Your task to perform on an android device: Open accessibility settings Image 0: 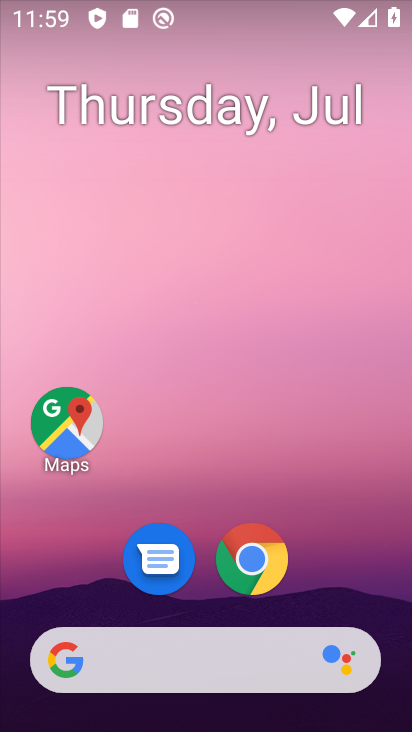
Step 0: drag from (341, 587) to (338, 76)
Your task to perform on an android device: Open accessibility settings Image 1: 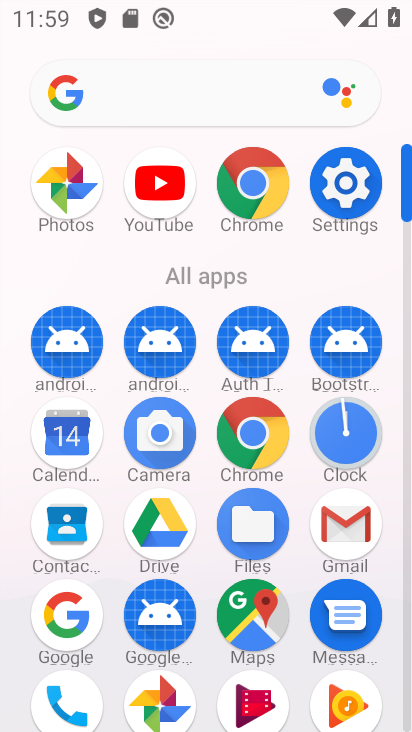
Step 1: click (355, 203)
Your task to perform on an android device: Open accessibility settings Image 2: 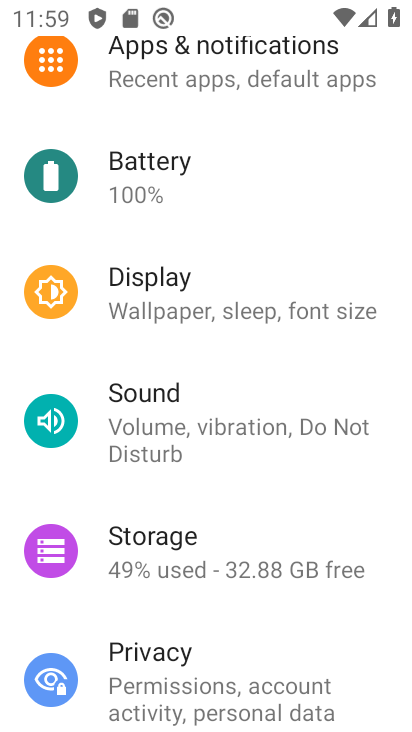
Step 2: drag from (352, 183) to (356, 311)
Your task to perform on an android device: Open accessibility settings Image 3: 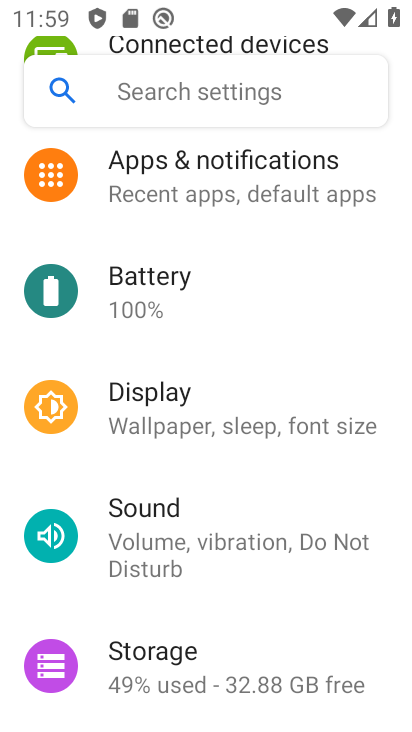
Step 3: drag from (377, 174) to (352, 372)
Your task to perform on an android device: Open accessibility settings Image 4: 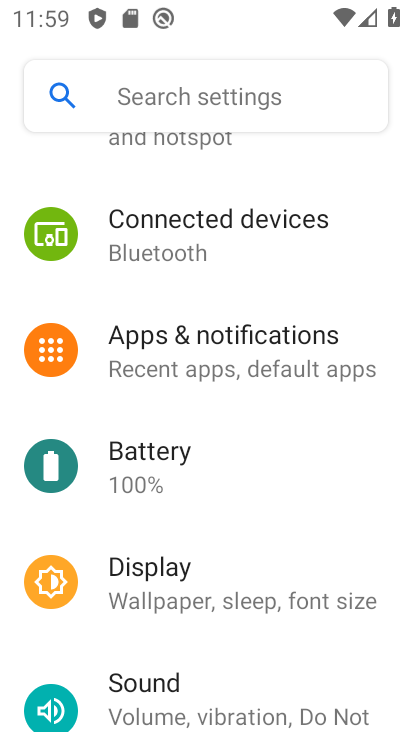
Step 4: drag from (336, 464) to (363, 361)
Your task to perform on an android device: Open accessibility settings Image 5: 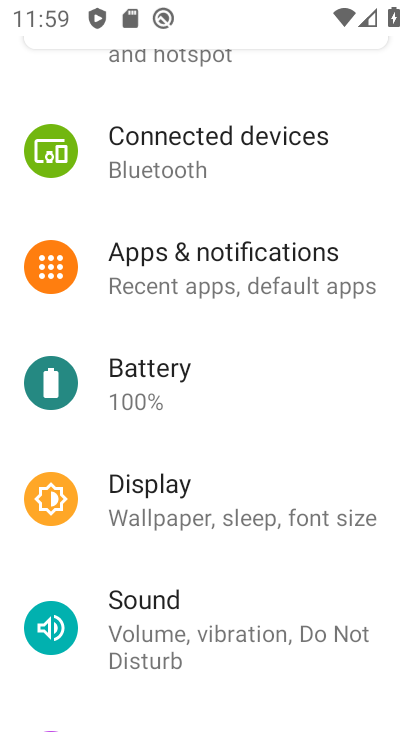
Step 5: drag from (371, 455) to (389, 173)
Your task to perform on an android device: Open accessibility settings Image 6: 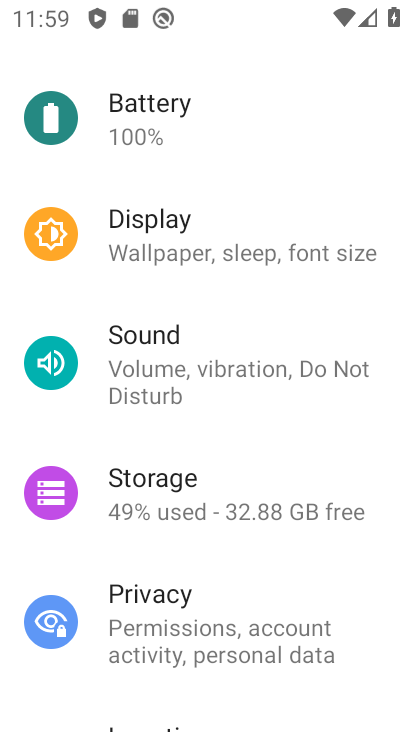
Step 6: drag from (362, 419) to (367, 274)
Your task to perform on an android device: Open accessibility settings Image 7: 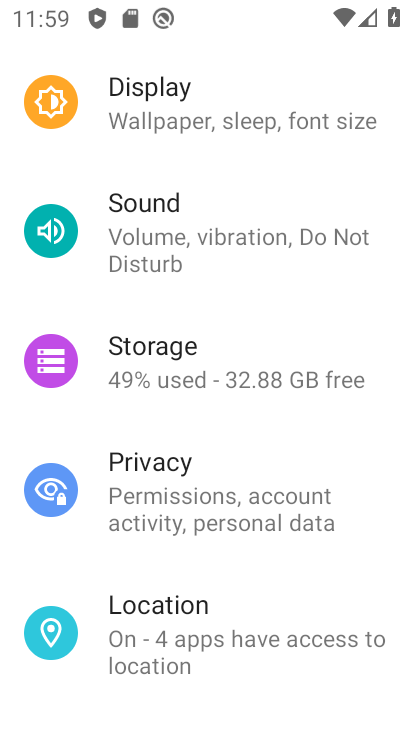
Step 7: drag from (345, 447) to (345, 398)
Your task to perform on an android device: Open accessibility settings Image 8: 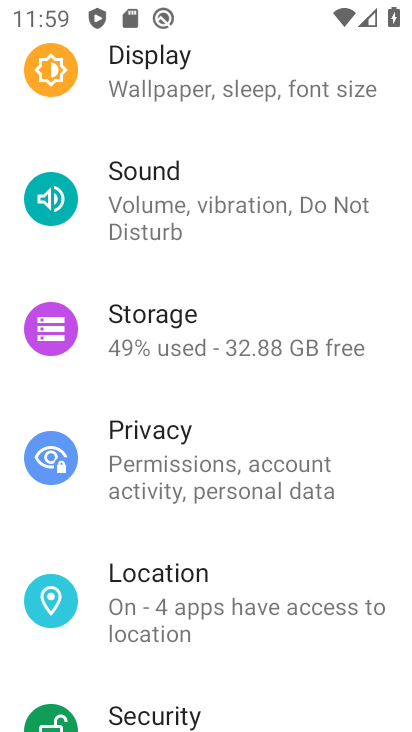
Step 8: drag from (352, 504) to (364, 410)
Your task to perform on an android device: Open accessibility settings Image 9: 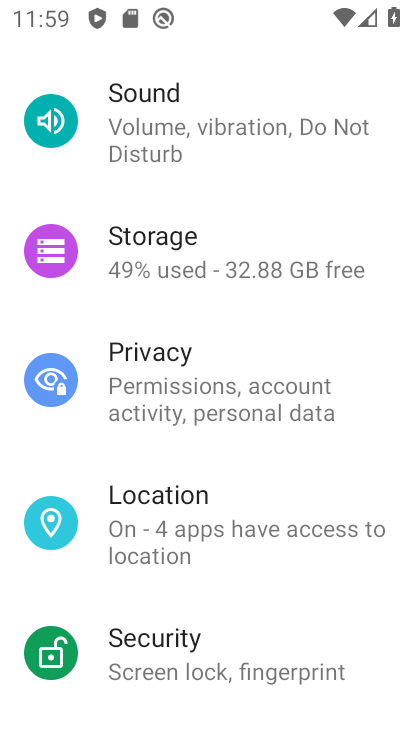
Step 9: drag from (361, 569) to (373, 429)
Your task to perform on an android device: Open accessibility settings Image 10: 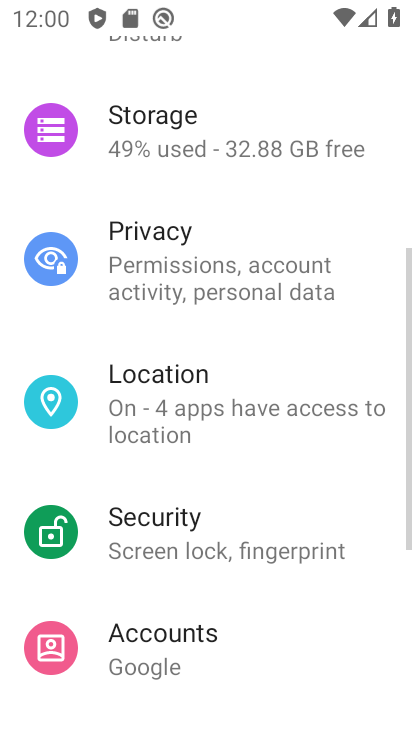
Step 10: drag from (366, 299) to (351, 450)
Your task to perform on an android device: Open accessibility settings Image 11: 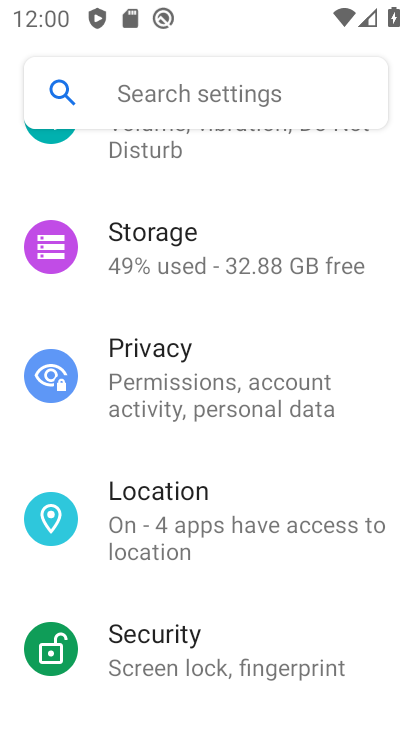
Step 11: drag from (364, 200) to (359, 372)
Your task to perform on an android device: Open accessibility settings Image 12: 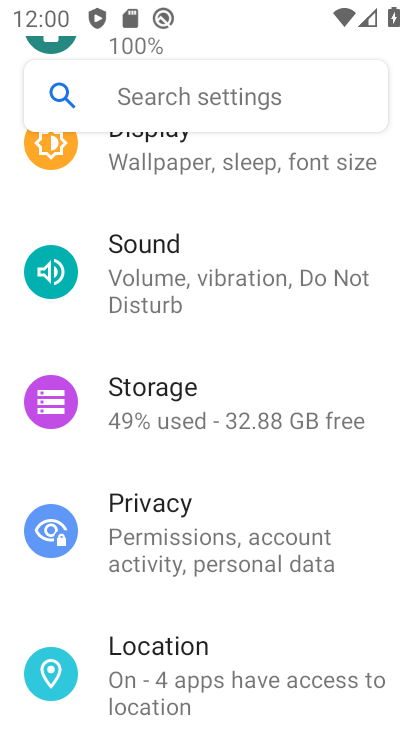
Step 12: drag from (386, 209) to (364, 360)
Your task to perform on an android device: Open accessibility settings Image 13: 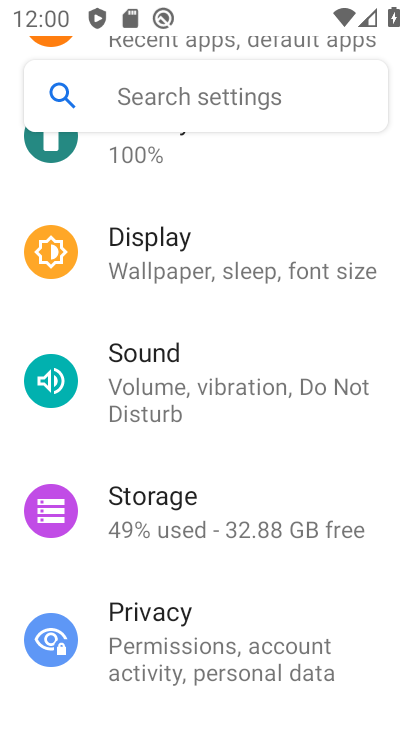
Step 13: drag from (356, 191) to (351, 353)
Your task to perform on an android device: Open accessibility settings Image 14: 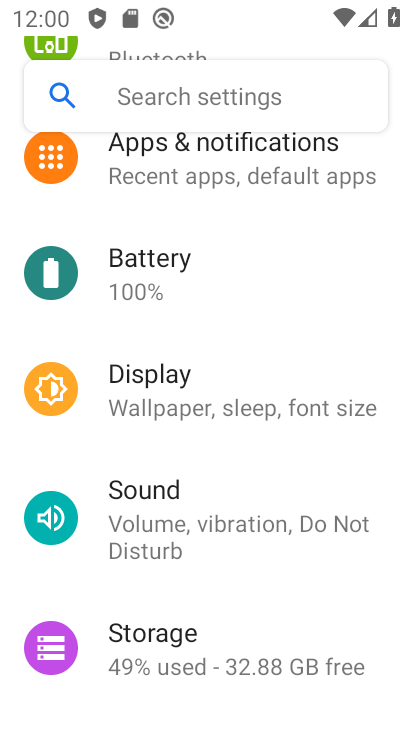
Step 14: drag from (371, 163) to (367, 335)
Your task to perform on an android device: Open accessibility settings Image 15: 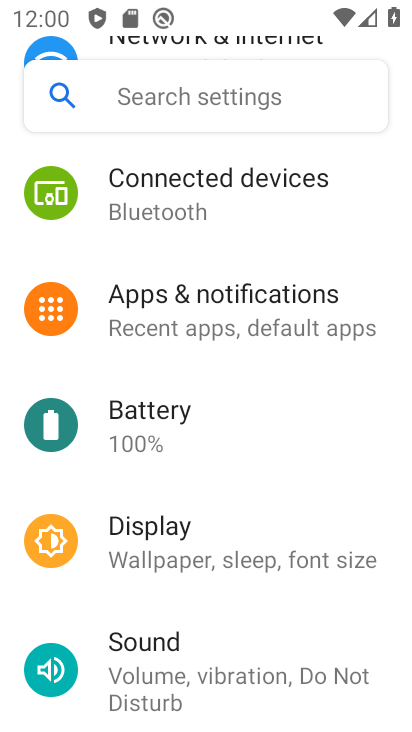
Step 15: drag from (342, 422) to (359, 308)
Your task to perform on an android device: Open accessibility settings Image 16: 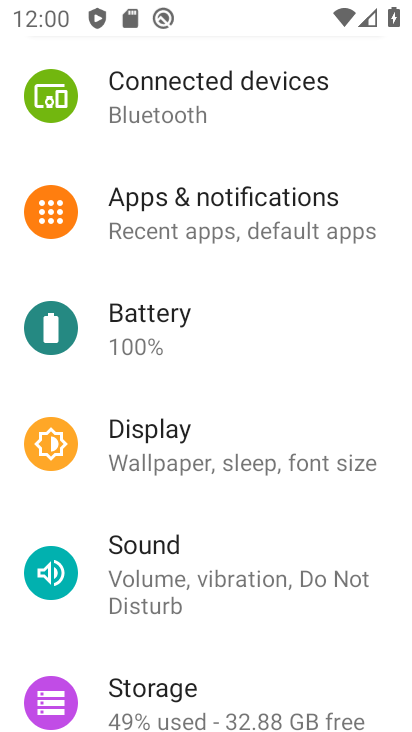
Step 16: drag from (338, 396) to (343, 295)
Your task to perform on an android device: Open accessibility settings Image 17: 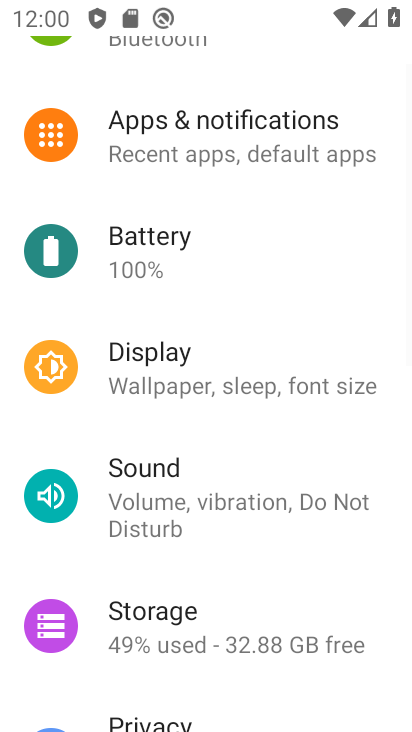
Step 17: drag from (321, 455) to (339, 321)
Your task to perform on an android device: Open accessibility settings Image 18: 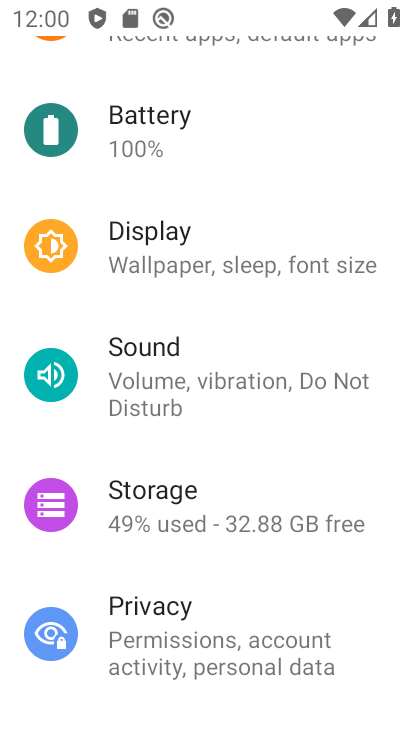
Step 18: drag from (322, 464) to (345, 339)
Your task to perform on an android device: Open accessibility settings Image 19: 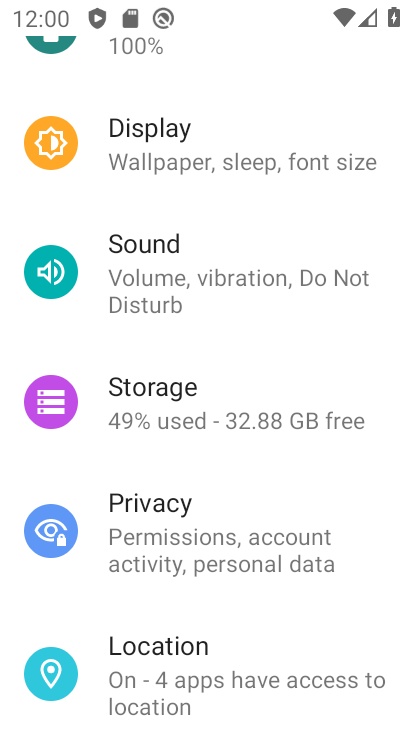
Step 19: drag from (353, 563) to (363, 398)
Your task to perform on an android device: Open accessibility settings Image 20: 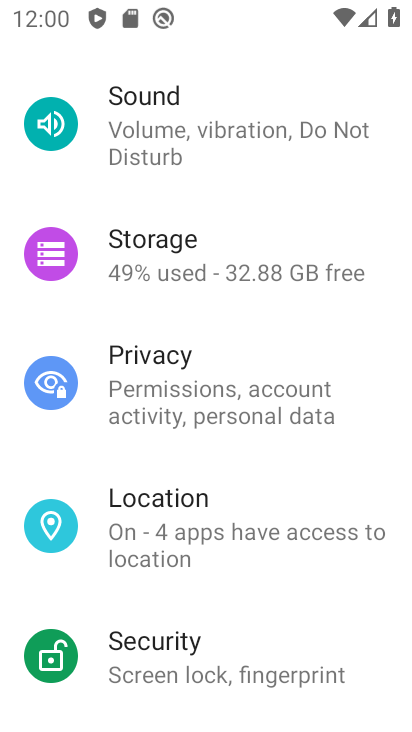
Step 20: drag from (333, 586) to (351, 418)
Your task to perform on an android device: Open accessibility settings Image 21: 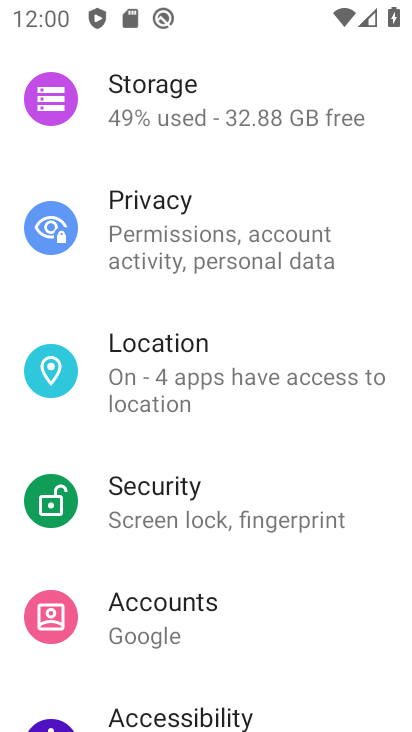
Step 21: drag from (335, 588) to (340, 417)
Your task to perform on an android device: Open accessibility settings Image 22: 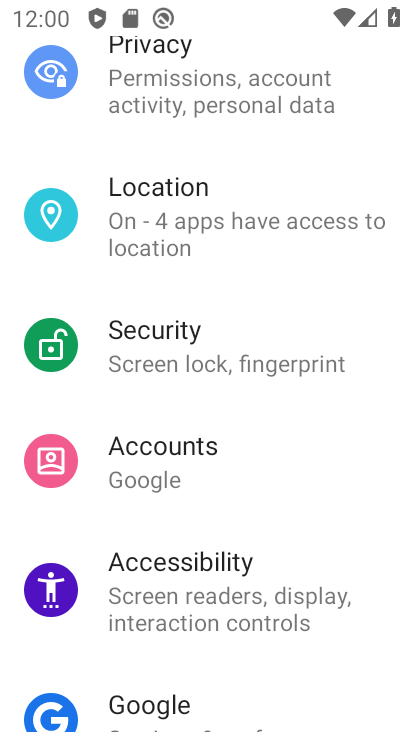
Step 22: drag from (361, 656) to (371, 527)
Your task to perform on an android device: Open accessibility settings Image 23: 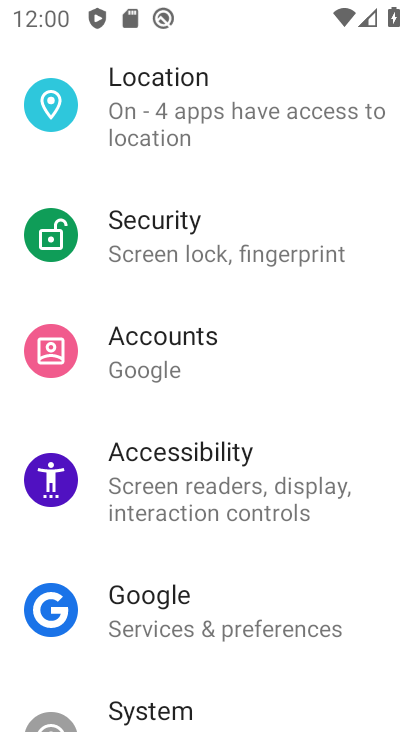
Step 23: click (311, 495)
Your task to perform on an android device: Open accessibility settings Image 24: 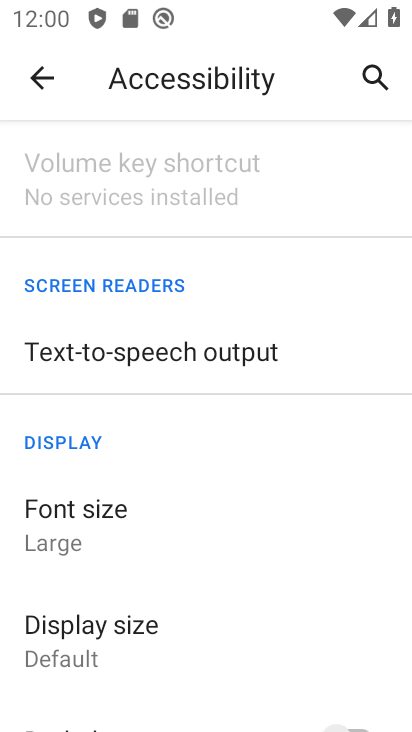
Step 24: task complete